Your task to perform on an android device: What's the weather today? Image 0: 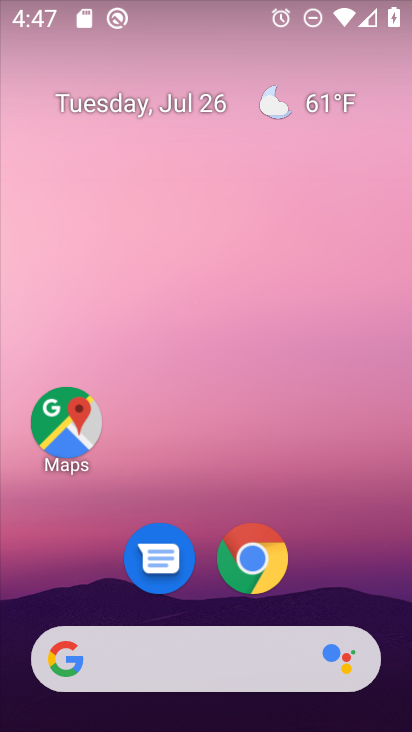
Step 0: click (189, 657)
Your task to perform on an android device: What's the weather today? Image 1: 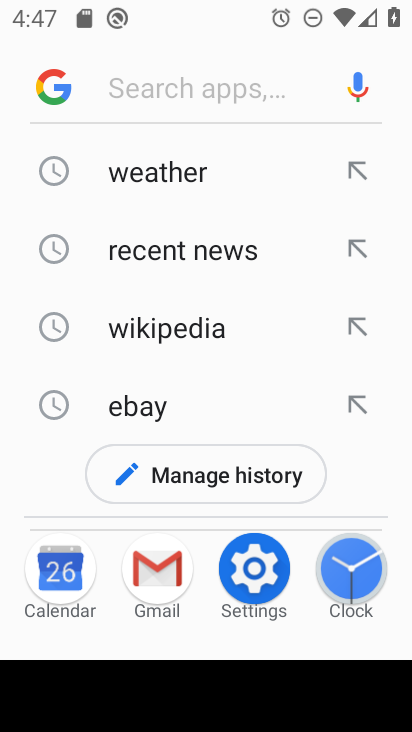
Step 1: click (139, 161)
Your task to perform on an android device: What's the weather today? Image 2: 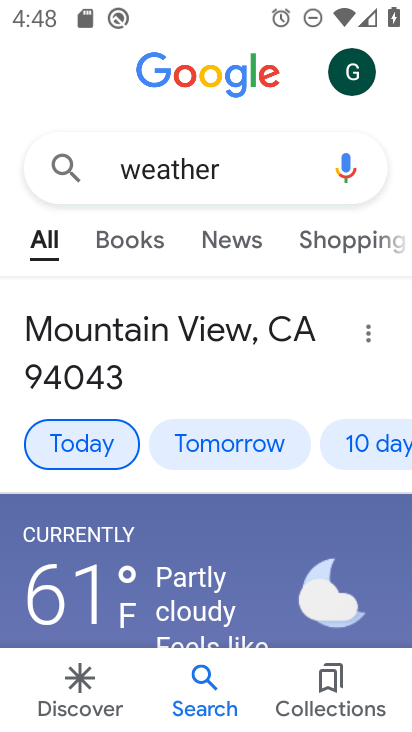
Step 2: task complete